Your task to perform on an android device: turn on data saver in the chrome app Image 0: 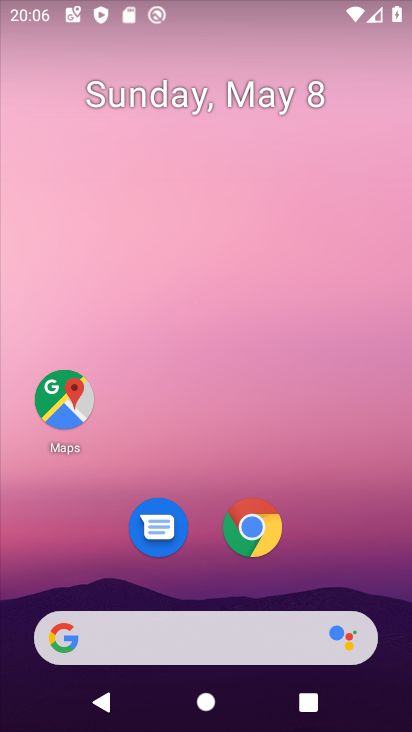
Step 0: drag from (354, 576) to (295, 44)
Your task to perform on an android device: turn on data saver in the chrome app Image 1: 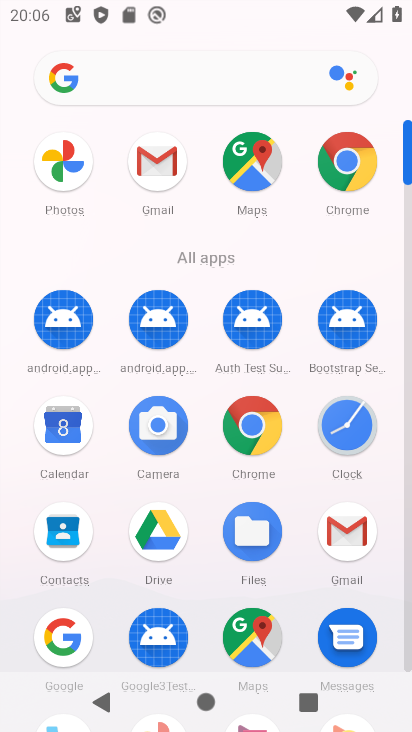
Step 1: click (344, 153)
Your task to perform on an android device: turn on data saver in the chrome app Image 2: 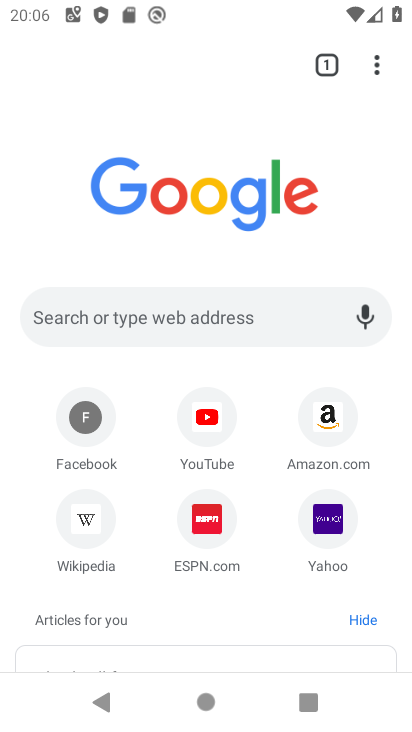
Step 2: drag from (375, 69) to (156, 552)
Your task to perform on an android device: turn on data saver in the chrome app Image 3: 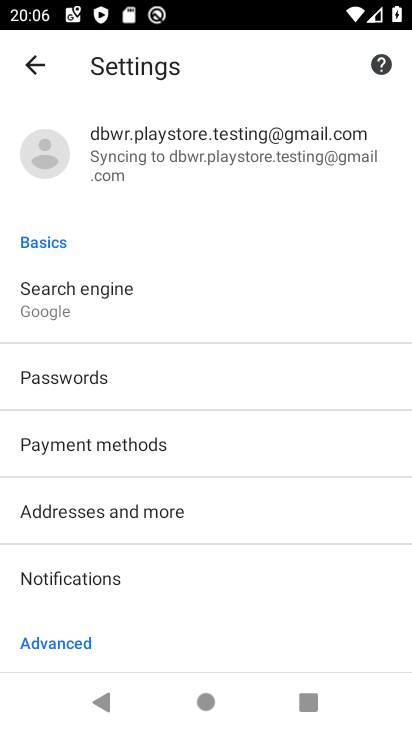
Step 3: drag from (230, 599) to (251, 187)
Your task to perform on an android device: turn on data saver in the chrome app Image 4: 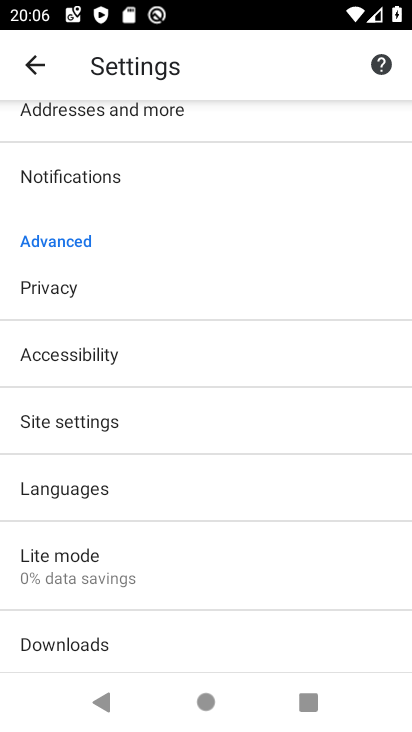
Step 4: drag from (179, 542) to (199, 179)
Your task to perform on an android device: turn on data saver in the chrome app Image 5: 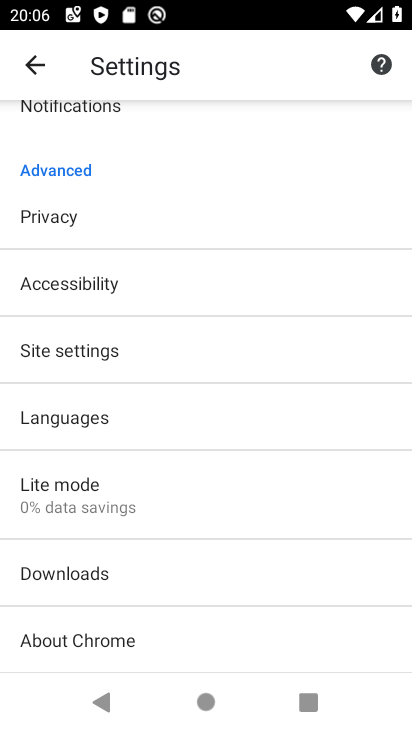
Step 5: click (90, 507)
Your task to perform on an android device: turn on data saver in the chrome app Image 6: 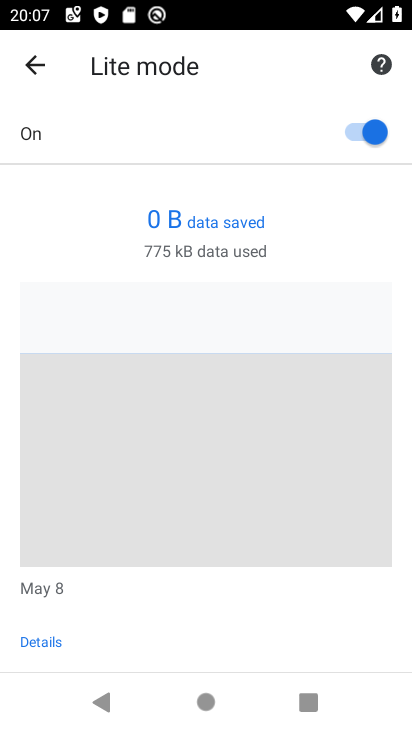
Step 6: task complete